Your task to perform on an android device: Open notification settings Image 0: 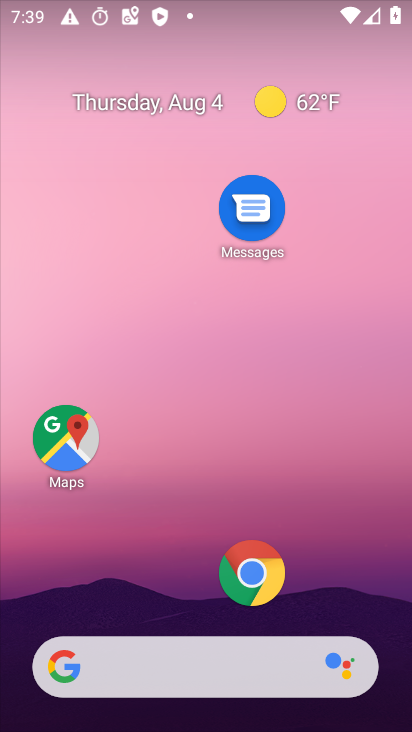
Step 0: press home button
Your task to perform on an android device: Open notification settings Image 1: 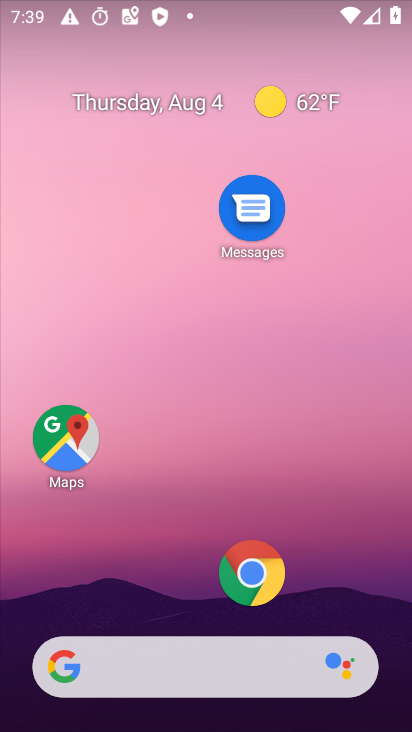
Step 1: drag from (127, 623) to (126, 96)
Your task to perform on an android device: Open notification settings Image 2: 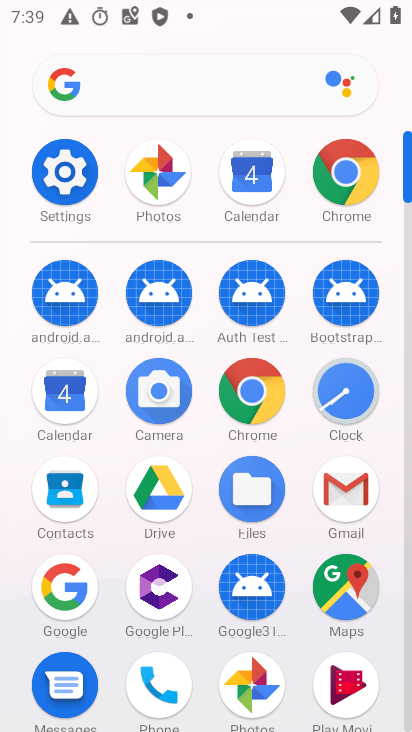
Step 2: click (60, 182)
Your task to perform on an android device: Open notification settings Image 3: 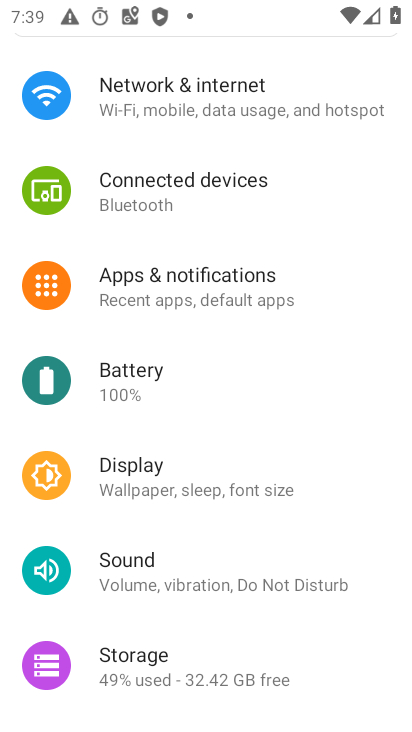
Step 3: click (161, 296)
Your task to perform on an android device: Open notification settings Image 4: 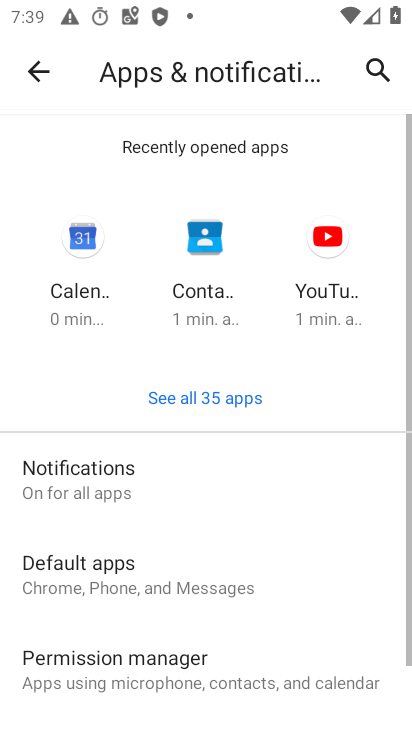
Step 4: click (74, 467)
Your task to perform on an android device: Open notification settings Image 5: 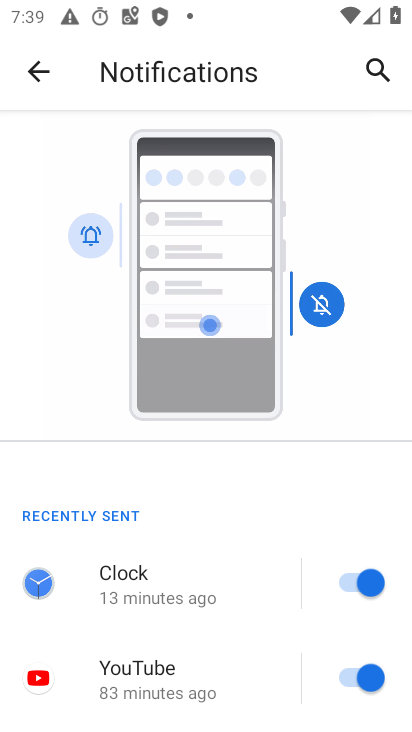
Step 5: task complete